Your task to perform on an android device: Open Google Chrome and open the bookmarks view Image 0: 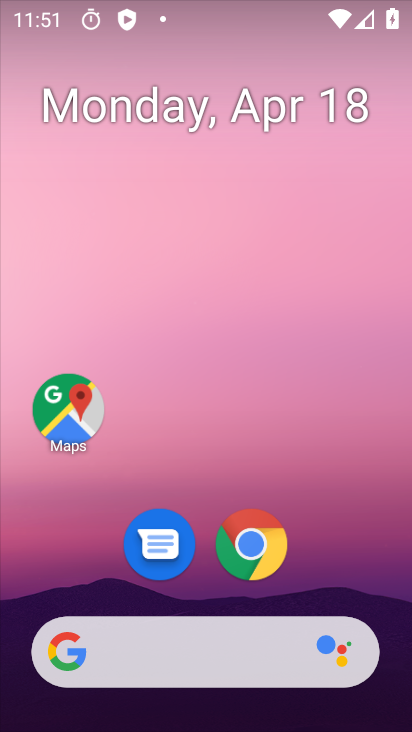
Step 0: click (260, 550)
Your task to perform on an android device: Open Google Chrome and open the bookmarks view Image 1: 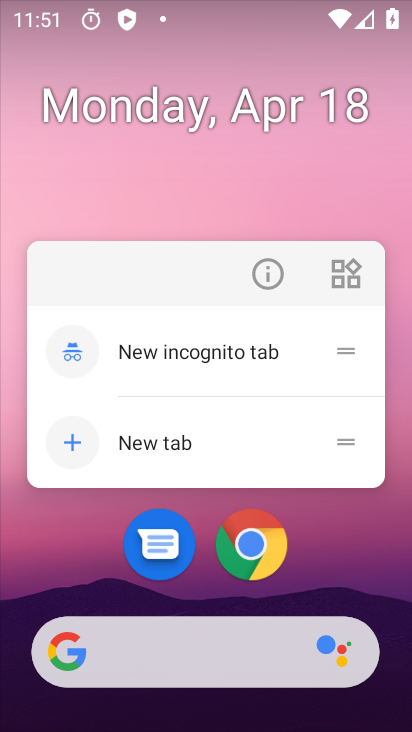
Step 1: click (283, 564)
Your task to perform on an android device: Open Google Chrome and open the bookmarks view Image 2: 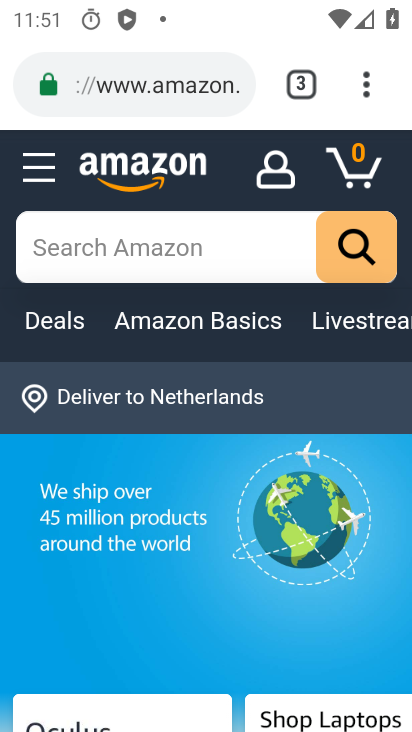
Step 2: click (370, 83)
Your task to perform on an android device: Open Google Chrome and open the bookmarks view Image 3: 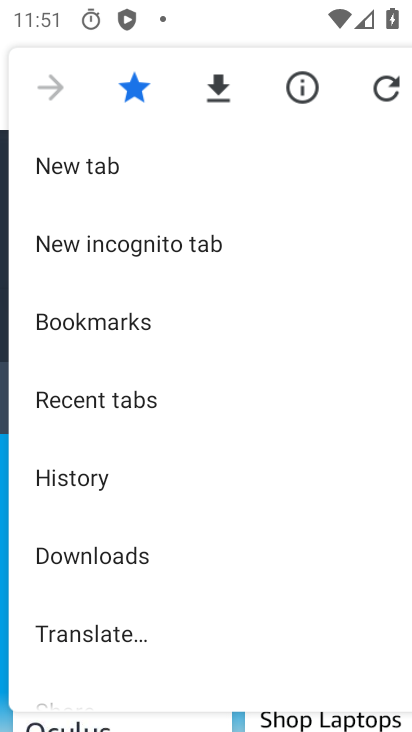
Step 3: click (56, 326)
Your task to perform on an android device: Open Google Chrome and open the bookmarks view Image 4: 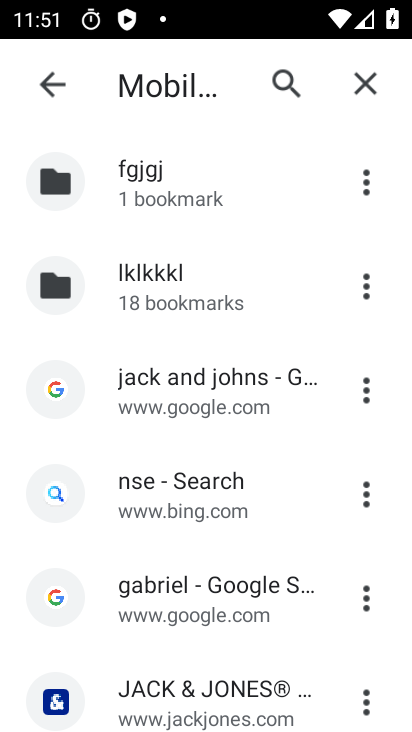
Step 4: task complete